Your task to perform on an android device: What's on my calendar tomorrow? Image 0: 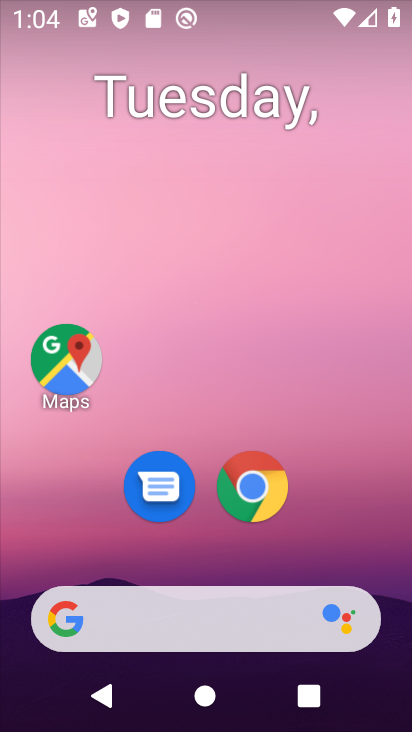
Step 0: drag from (299, 543) to (311, 194)
Your task to perform on an android device: What's on my calendar tomorrow? Image 1: 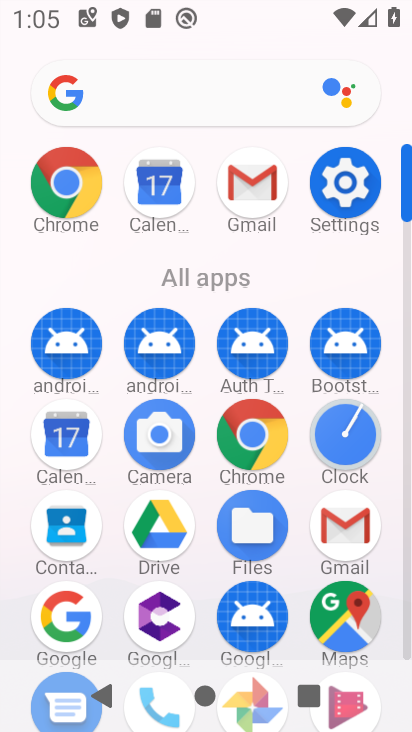
Step 1: click (169, 199)
Your task to perform on an android device: What's on my calendar tomorrow? Image 2: 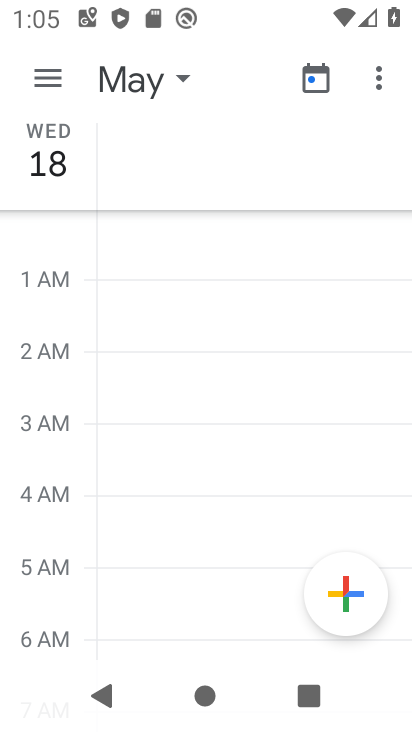
Step 2: task complete